Your task to perform on an android device: open app "PUBG MOBILE" (install if not already installed) Image 0: 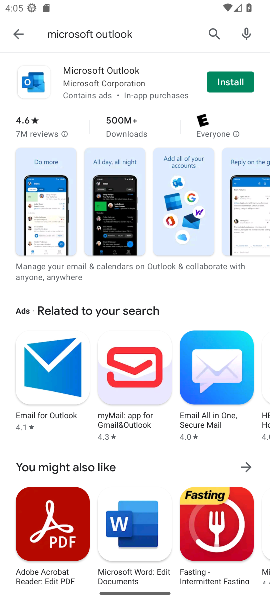
Step 0: click (210, 30)
Your task to perform on an android device: open app "PUBG MOBILE" (install if not already installed) Image 1: 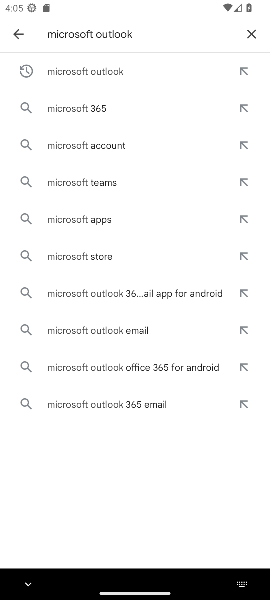
Step 1: click (257, 33)
Your task to perform on an android device: open app "PUBG MOBILE" (install if not already installed) Image 2: 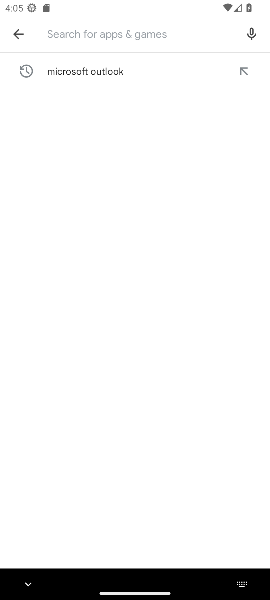
Step 2: type "PUBG MOBILE"
Your task to perform on an android device: open app "PUBG MOBILE" (install if not already installed) Image 3: 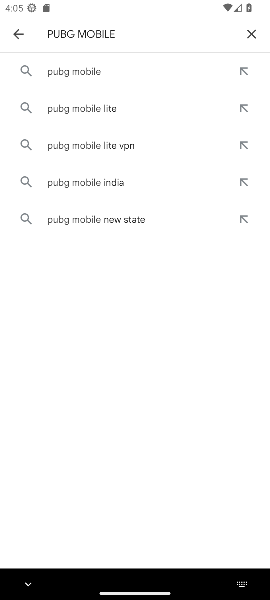
Step 3: click (86, 79)
Your task to perform on an android device: open app "PUBG MOBILE" (install if not already installed) Image 4: 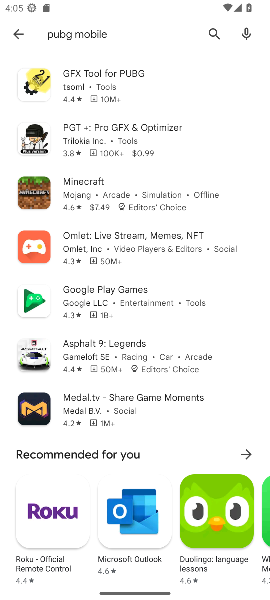
Step 4: task complete